Your task to perform on an android device: Show me popular videos on Youtube Image 0: 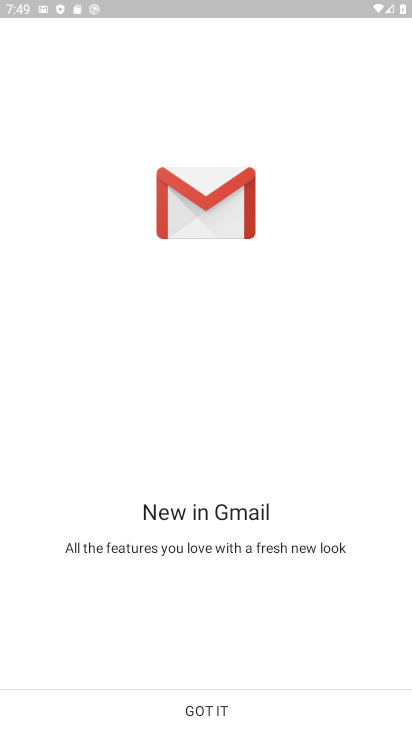
Step 0: press home button
Your task to perform on an android device: Show me popular videos on Youtube Image 1: 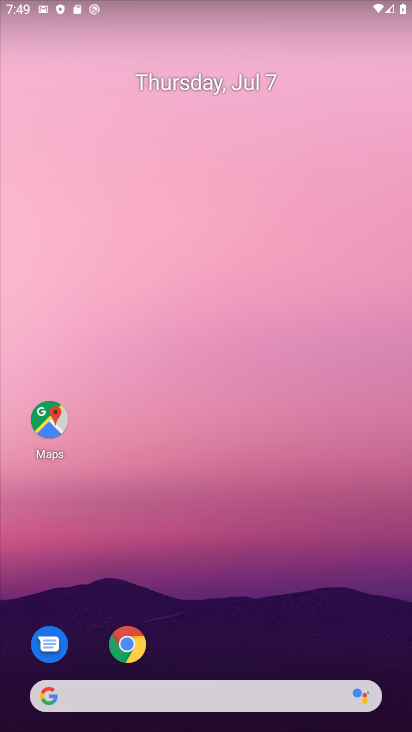
Step 1: drag from (214, 365) to (268, 114)
Your task to perform on an android device: Show me popular videos on Youtube Image 2: 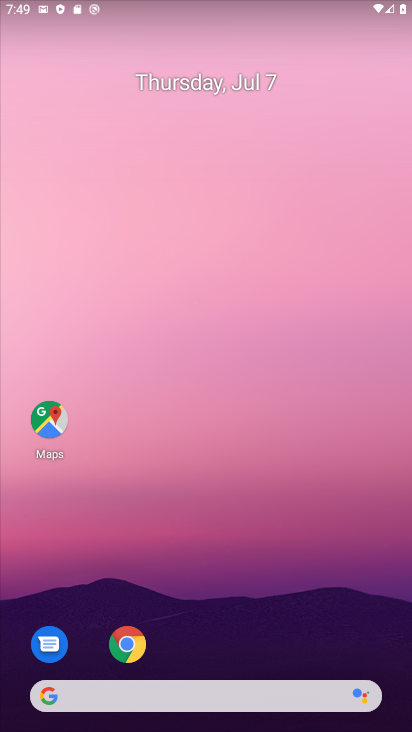
Step 2: drag from (253, 672) to (330, 106)
Your task to perform on an android device: Show me popular videos on Youtube Image 3: 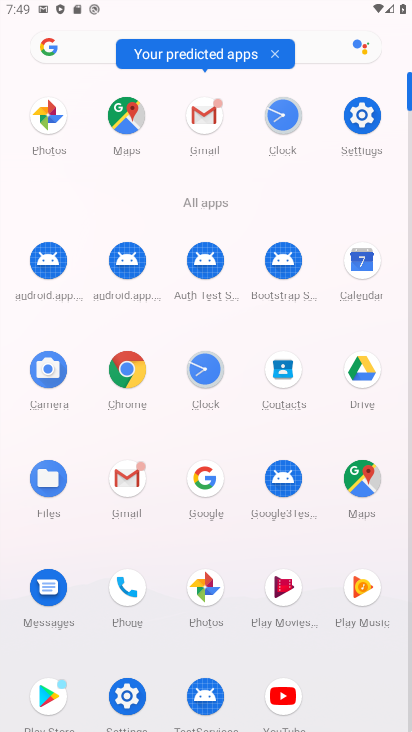
Step 3: click (290, 695)
Your task to perform on an android device: Show me popular videos on Youtube Image 4: 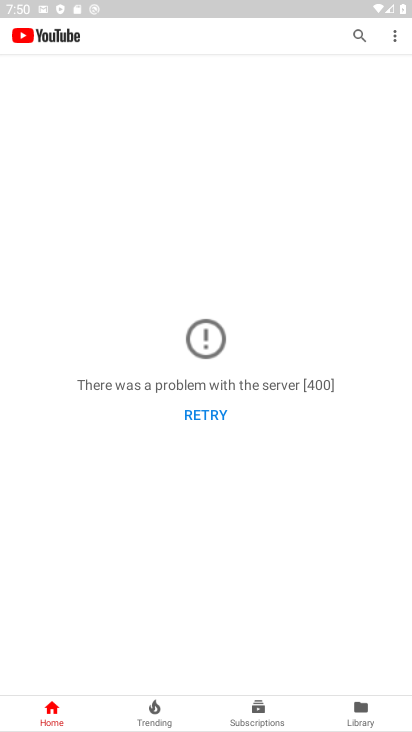
Step 4: task complete